Your task to perform on an android device: change the upload size in google photos Image 0: 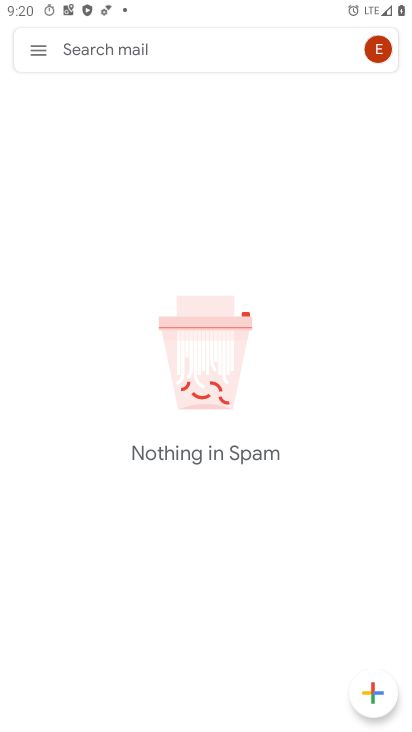
Step 0: press home button
Your task to perform on an android device: change the upload size in google photos Image 1: 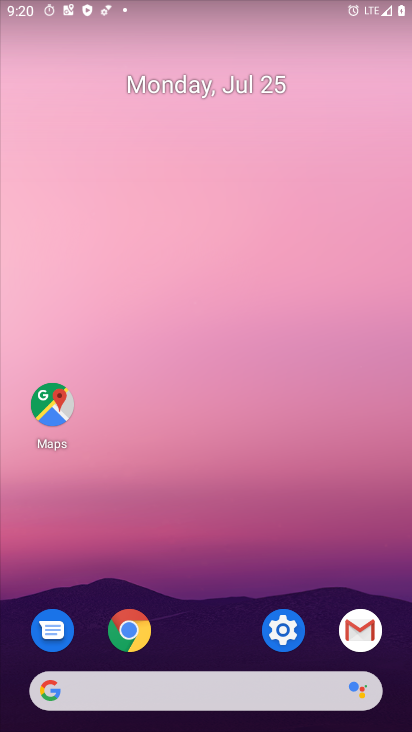
Step 1: drag from (257, 626) to (262, 96)
Your task to perform on an android device: change the upload size in google photos Image 2: 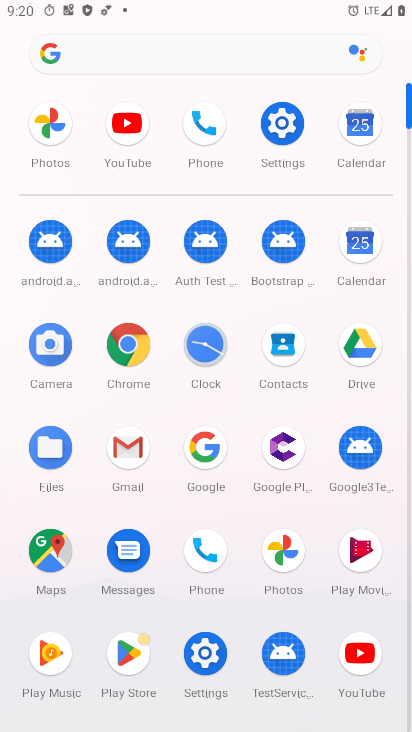
Step 2: click (292, 561)
Your task to perform on an android device: change the upload size in google photos Image 3: 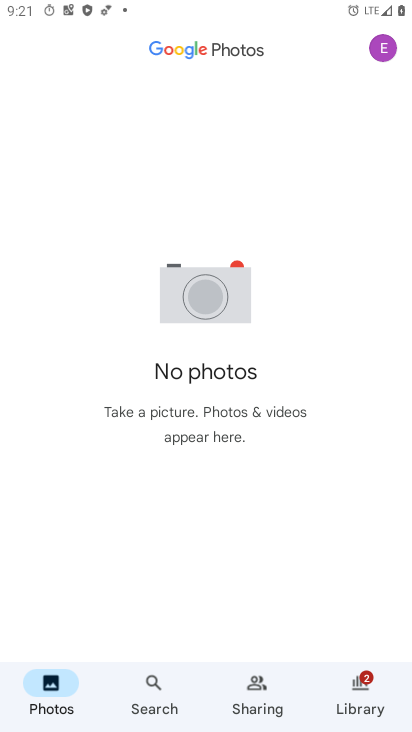
Step 3: click (359, 49)
Your task to perform on an android device: change the upload size in google photos Image 4: 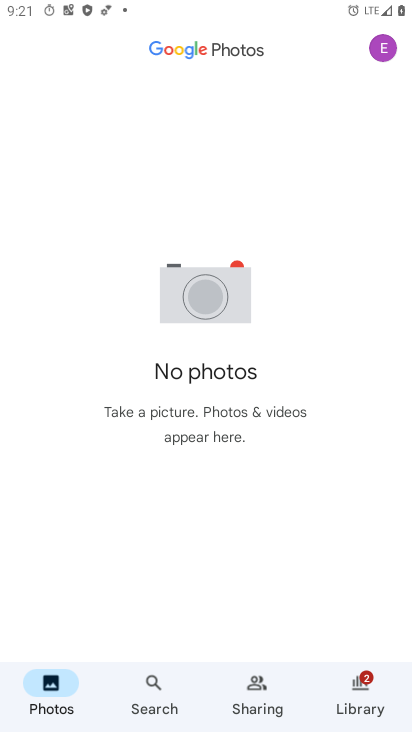
Step 4: click (372, 47)
Your task to perform on an android device: change the upload size in google photos Image 5: 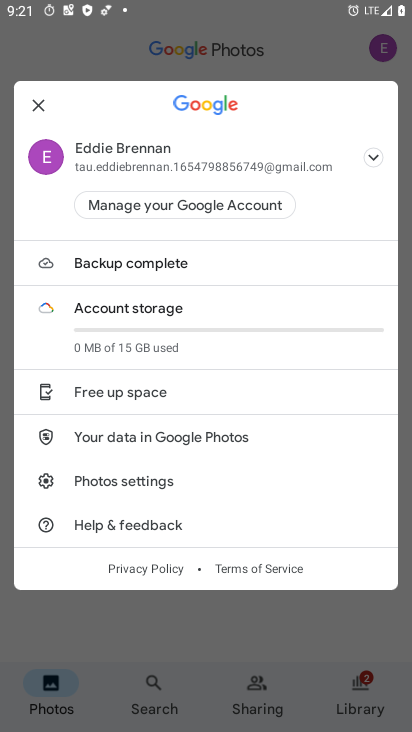
Step 5: click (137, 483)
Your task to perform on an android device: change the upload size in google photos Image 6: 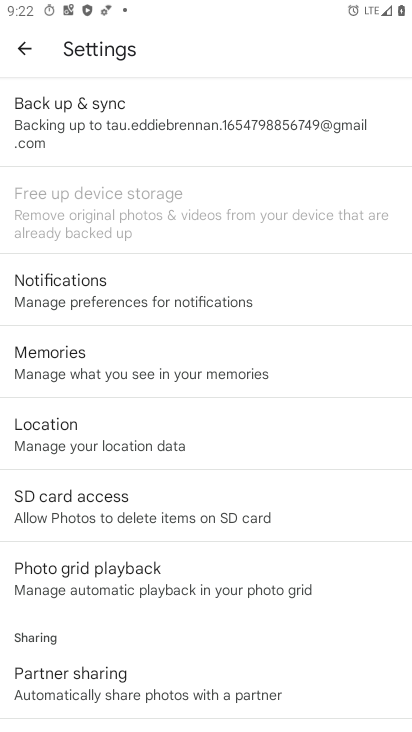
Step 6: click (126, 99)
Your task to perform on an android device: change the upload size in google photos Image 7: 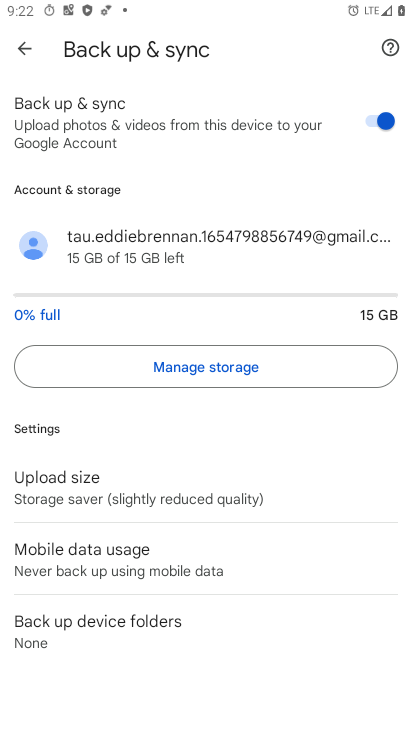
Step 7: click (114, 496)
Your task to perform on an android device: change the upload size in google photos Image 8: 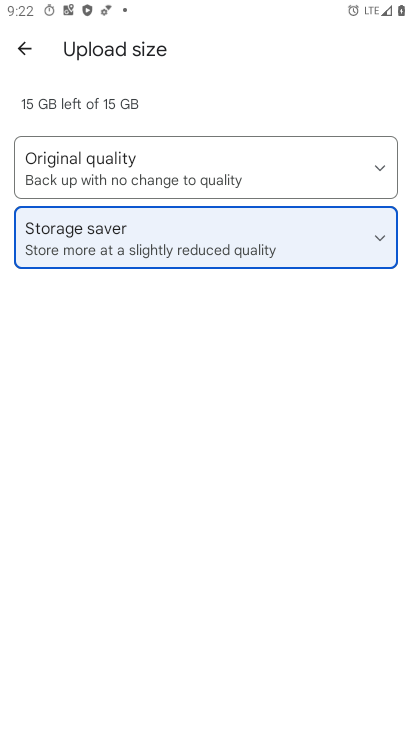
Step 8: task complete